Your task to perform on an android device: Check the settings for the Google Play Music app Image 0: 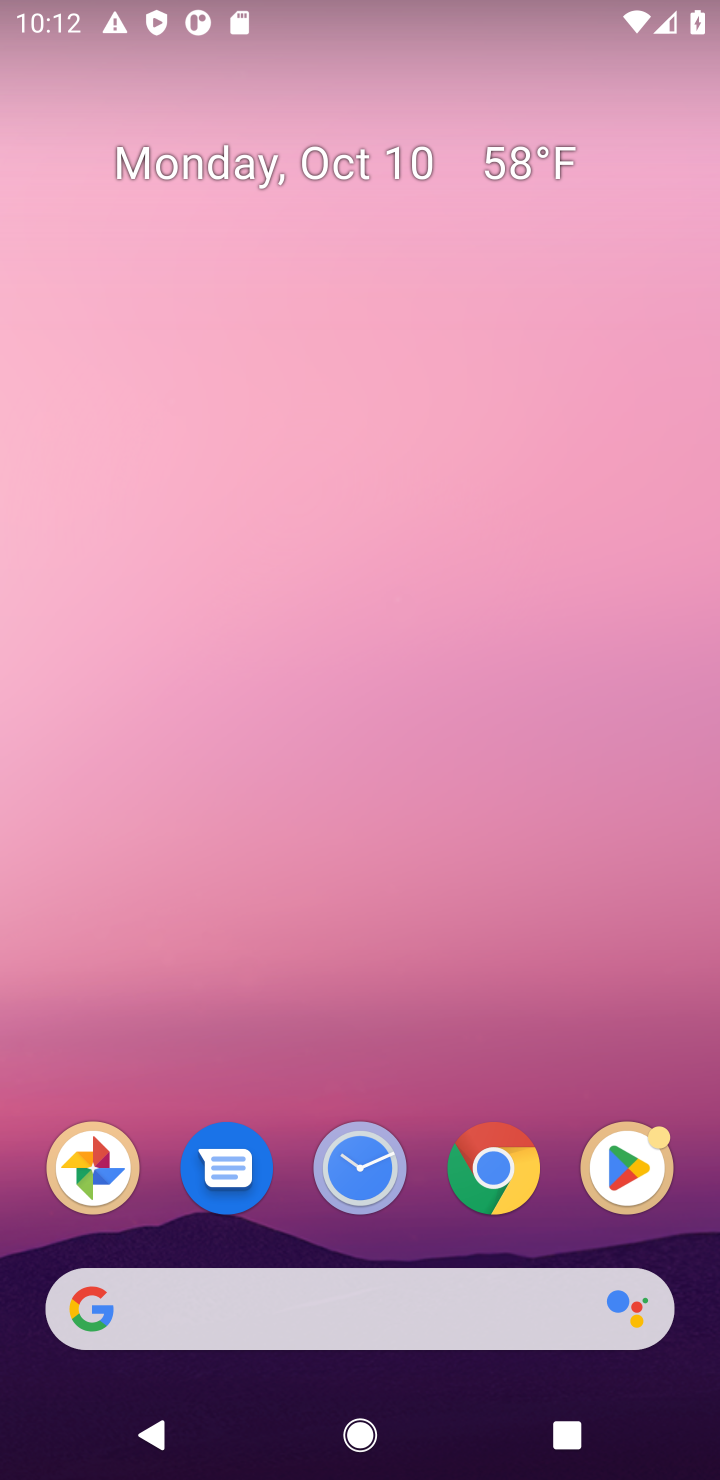
Step 0: drag from (386, 1006) to (438, 428)
Your task to perform on an android device: Check the settings for the Google Play Music app Image 1: 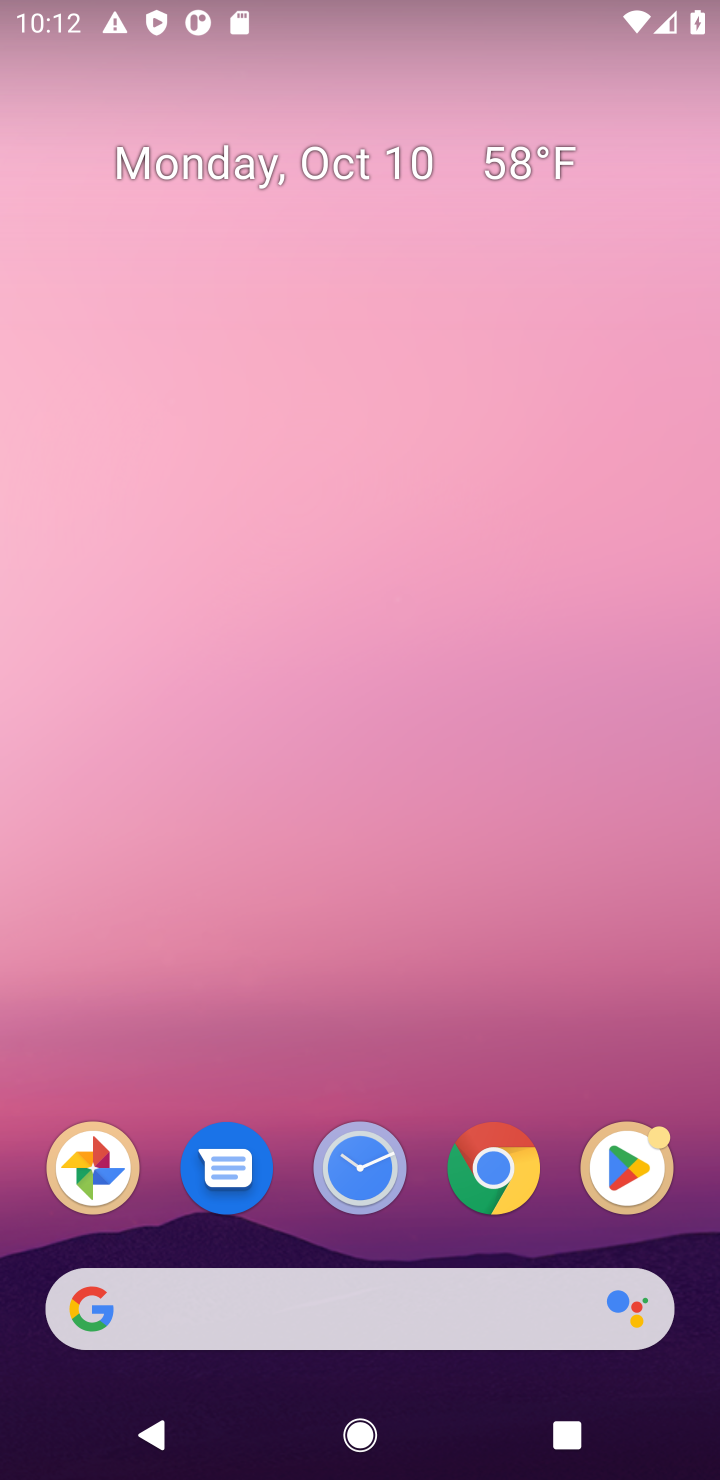
Step 1: drag from (348, 1061) to (404, 257)
Your task to perform on an android device: Check the settings for the Google Play Music app Image 2: 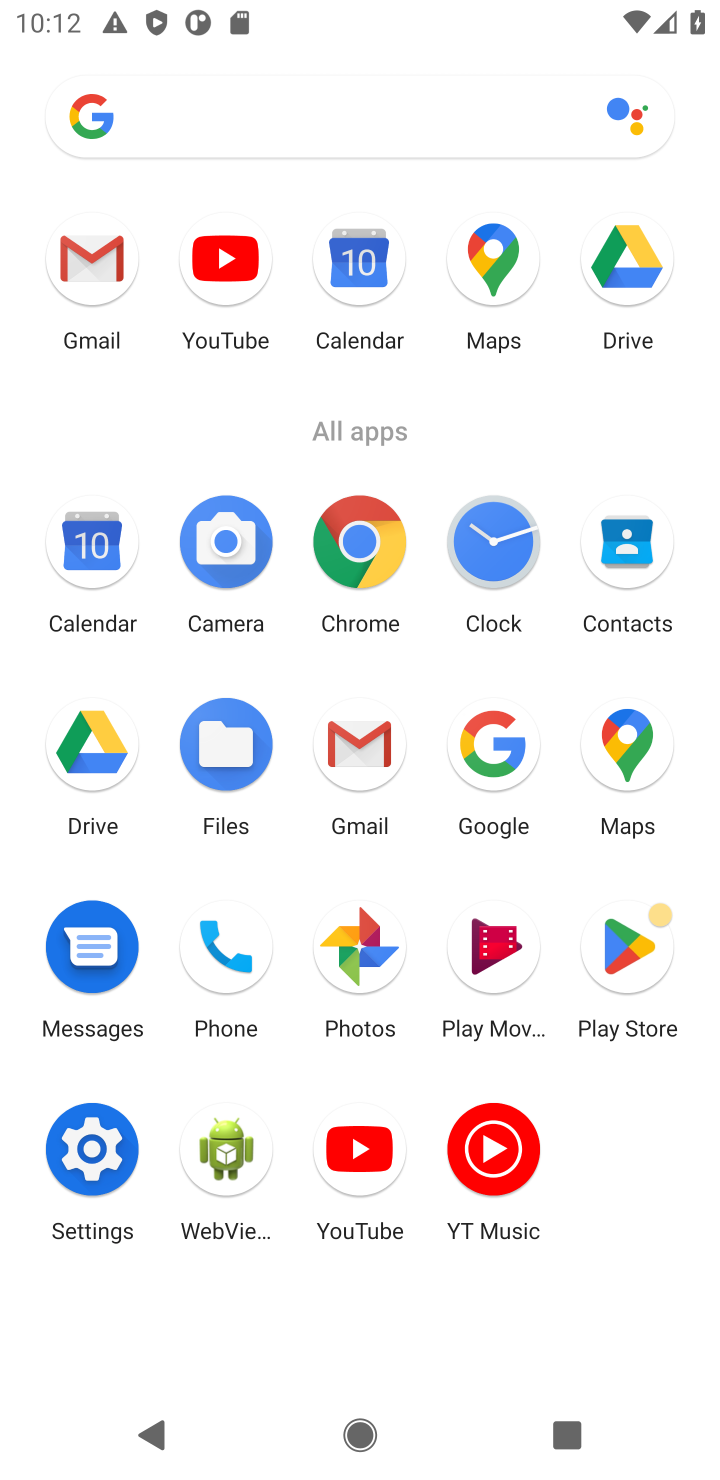
Step 2: click (465, 959)
Your task to perform on an android device: Check the settings for the Google Play Music app Image 3: 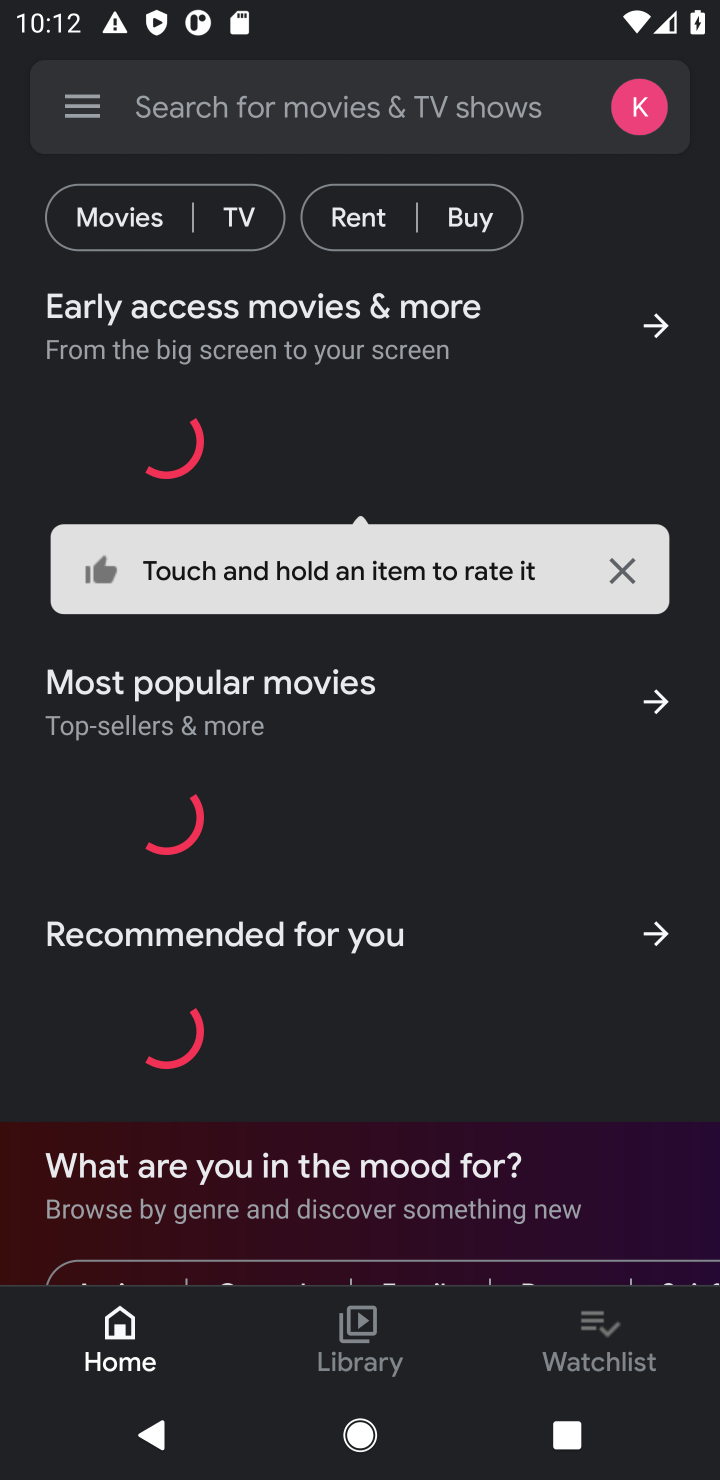
Step 3: click (65, 109)
Your task to perform on an android device: Check the settings for the Google Play Music app Image 4: 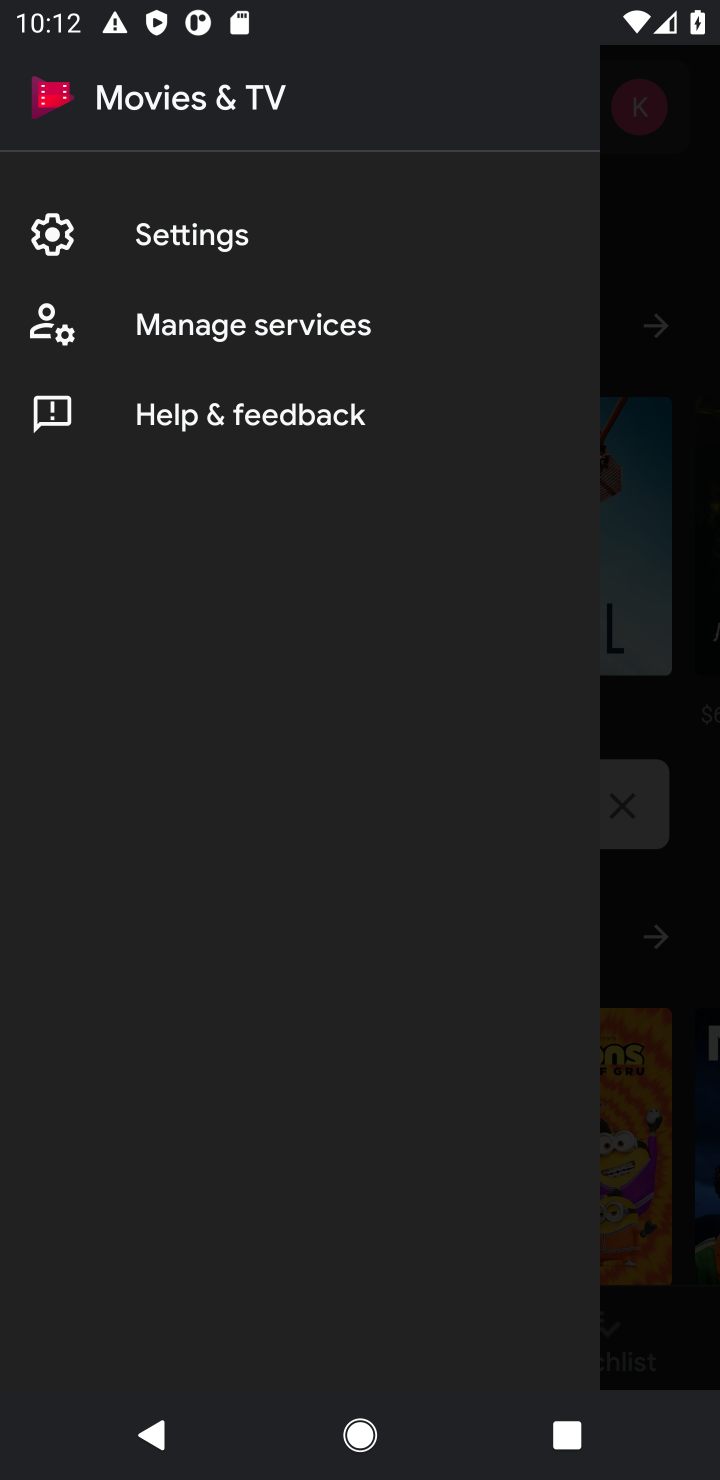
Step 4: click (207, 248)
Your task to perform on an android device: Check the settings for the Google Play Music app Image 5: 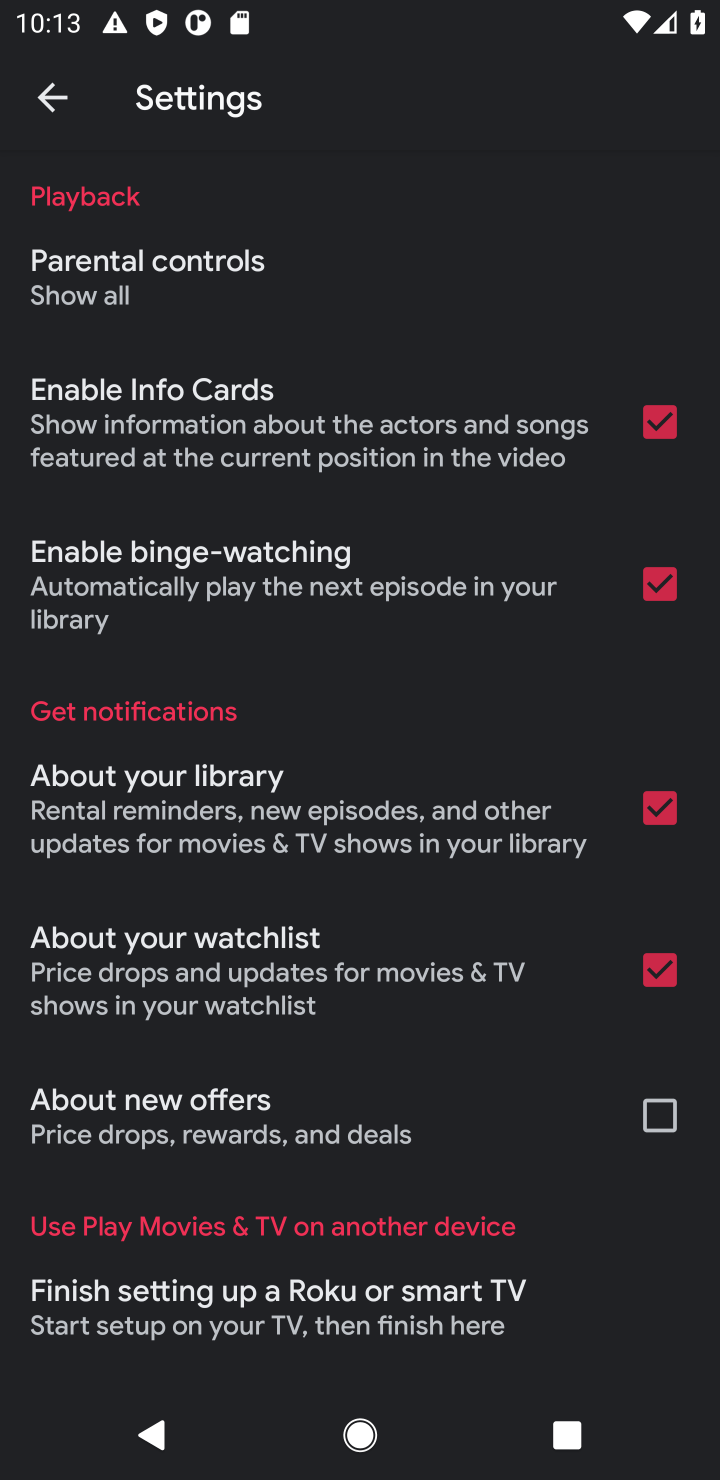
Step 5: task complete